Your task to perform on an android device: Do I have any events tomorrow? Image 0: 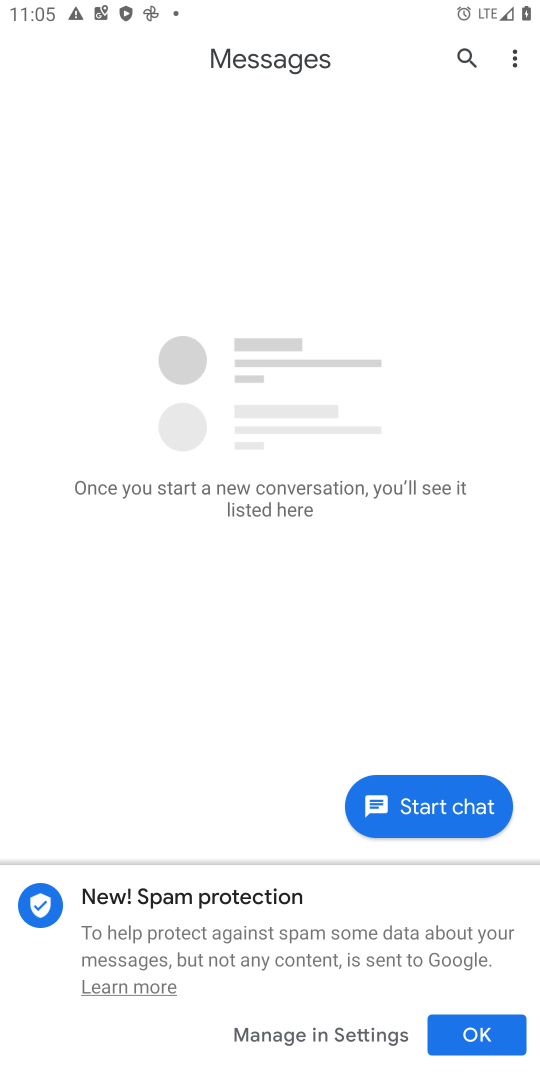
Step 0: press home button
Your task to perform on an android device: Do I have any events tomorrow? Image 1: 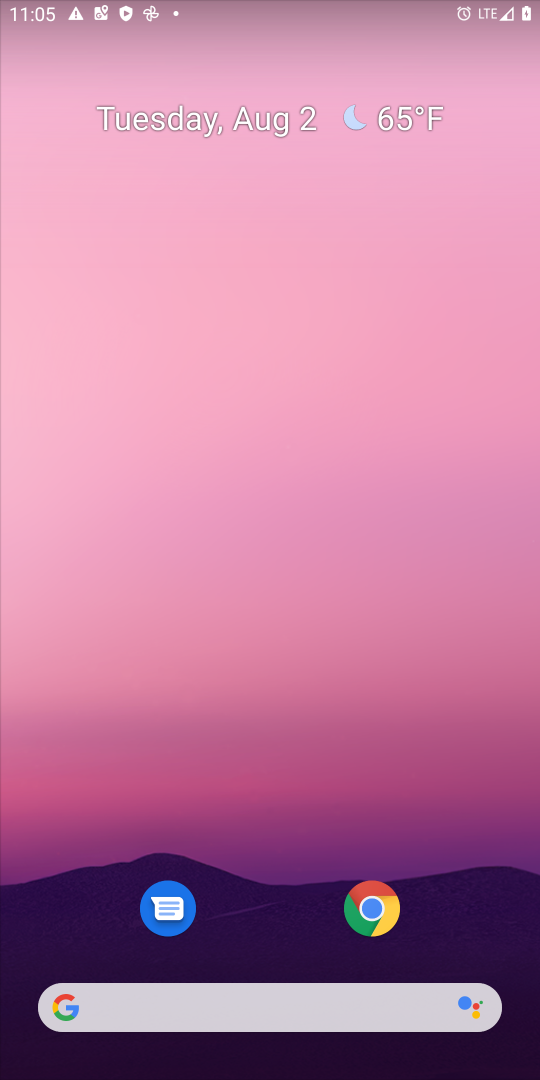
Step 1: drag from (310, 715) to (273, 215)
Your task to perform on an android device: Do I have any events tomorrow? Image 2: 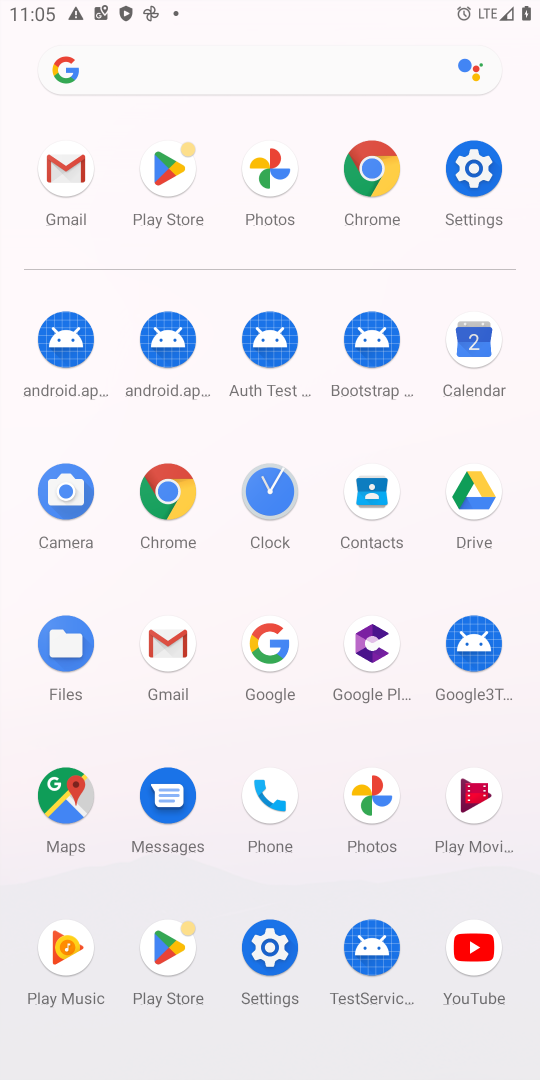
Step 2: click (478, 368)
Your task to perform on an android device: Do I have any events tomorrow? Image 3: 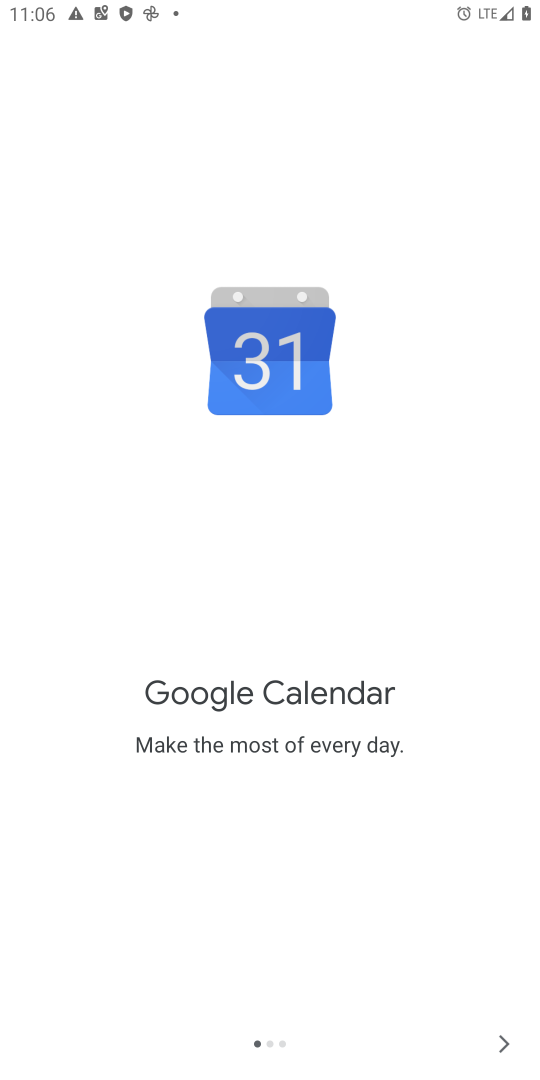
Step 3: click (493, 1039)
Your task to perform on an android device: Do I have any events tomorrow? Image 4: 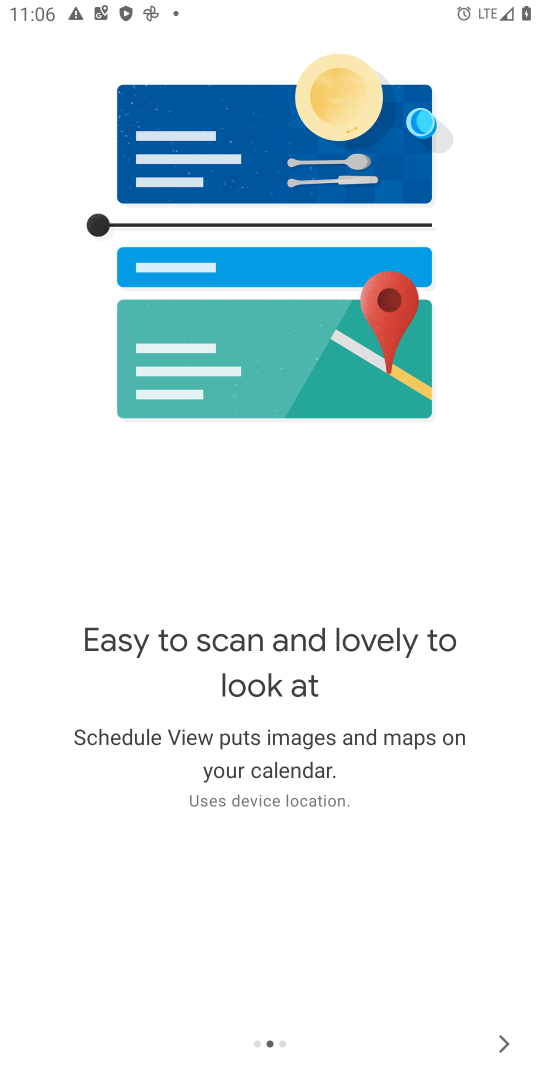
Step 4: click (498, 1040)
Your task to perform on an android device: Do I have any events tomorrow? Image 5: 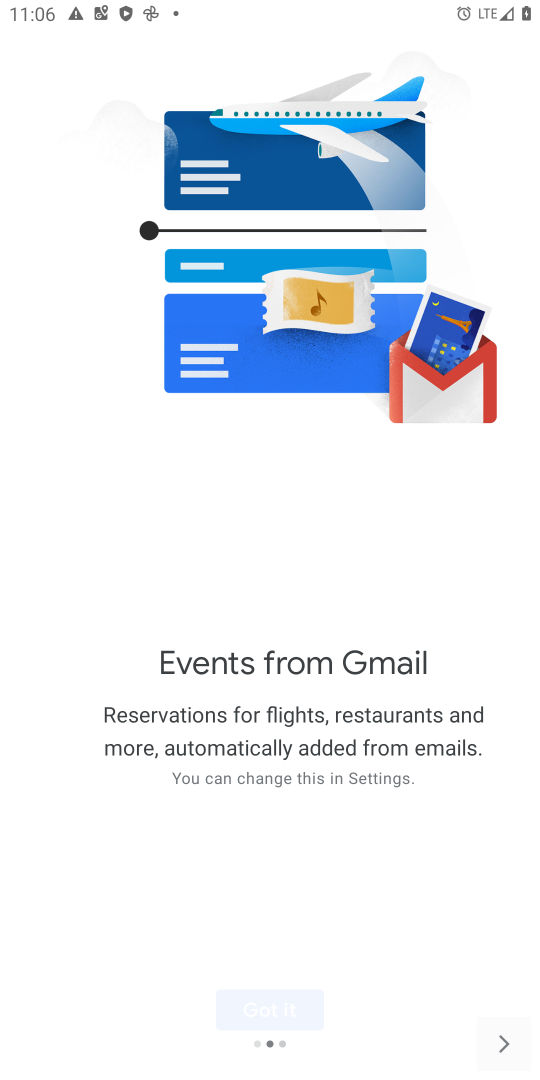
Step 5: click (498, 1040)
Your task to perform on an android device: Do I have any events tomorrow? Image 6: 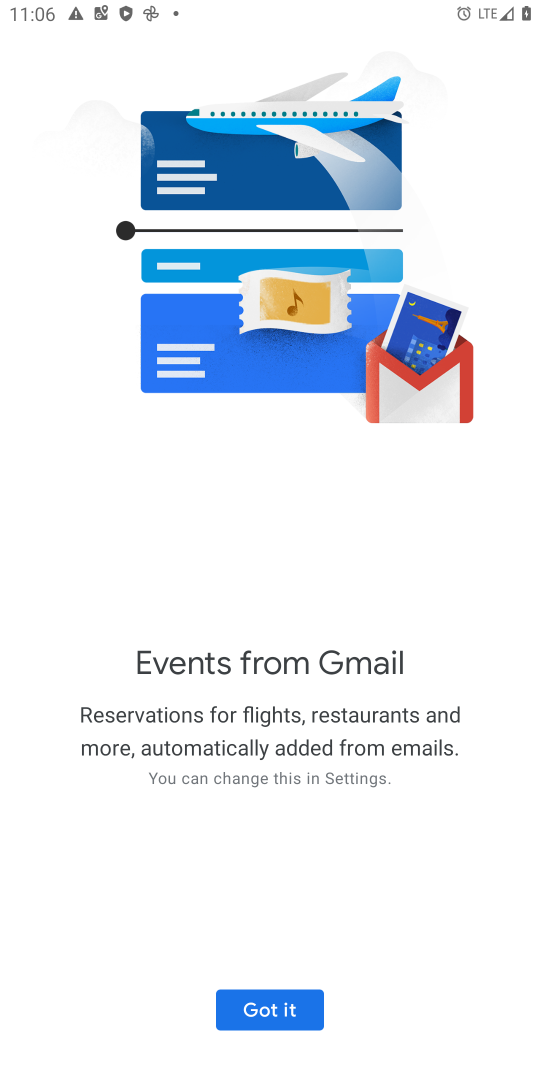
Step 6: click (500, 1041)
Your task to perform on an android device: Do I have any events tomorrow? Image 7: 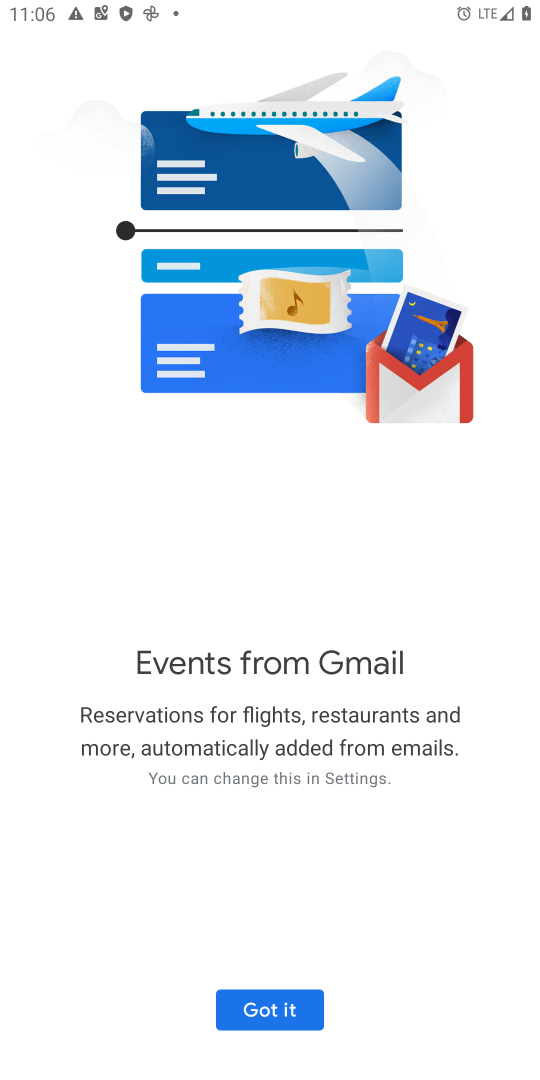
Step 7: click (289, 1020)
Your task to perform on an android device: Do I have any events tomorrow? Image 8: 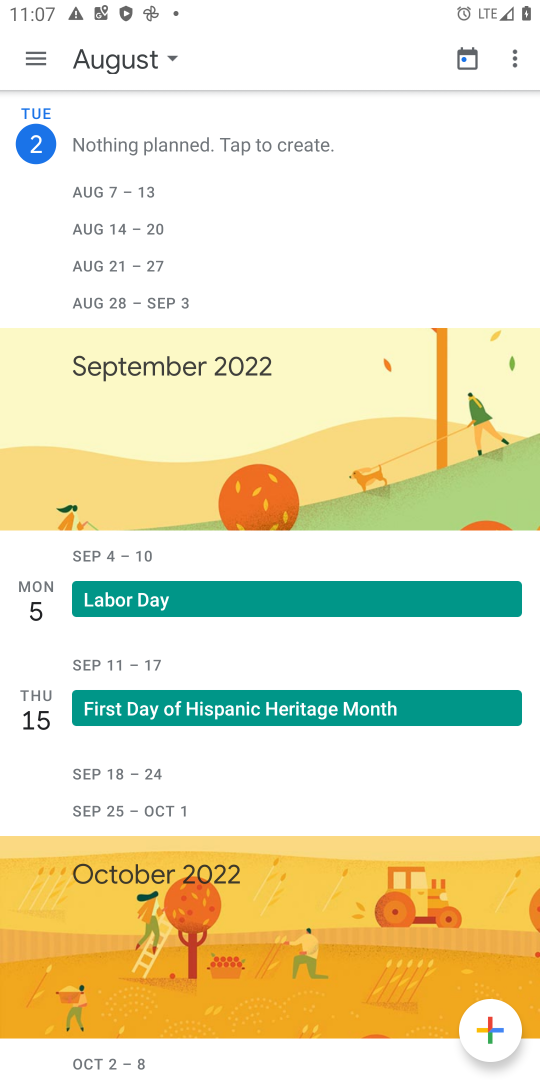
Step 8: click (31, 51)
Your task to perform on an android device: Do I have any events tomorrow? Image 9: 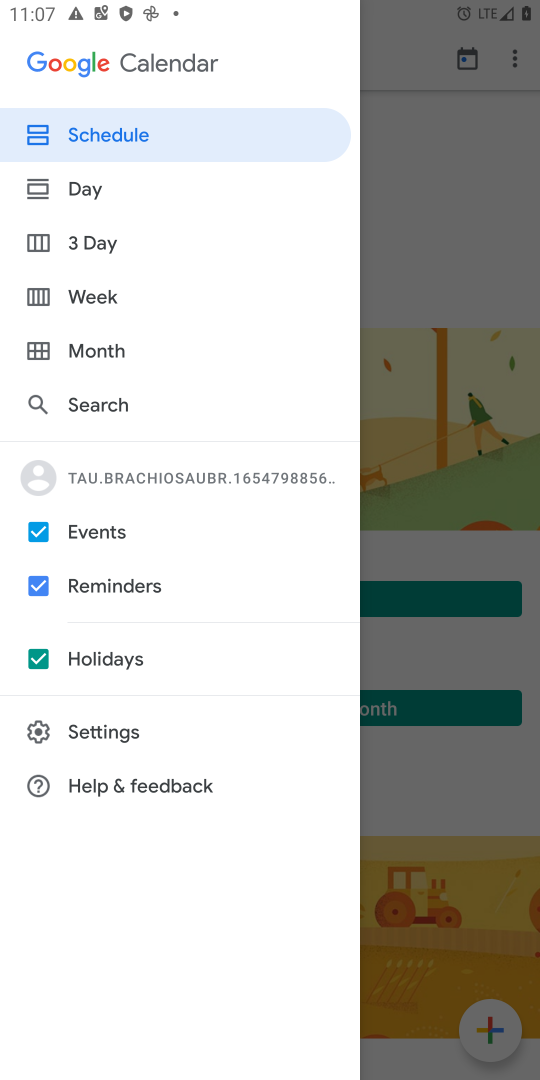
Step 9: click (119, 187)
Your task to perform on an android device: Do I have any events tomorrow? Image 10: 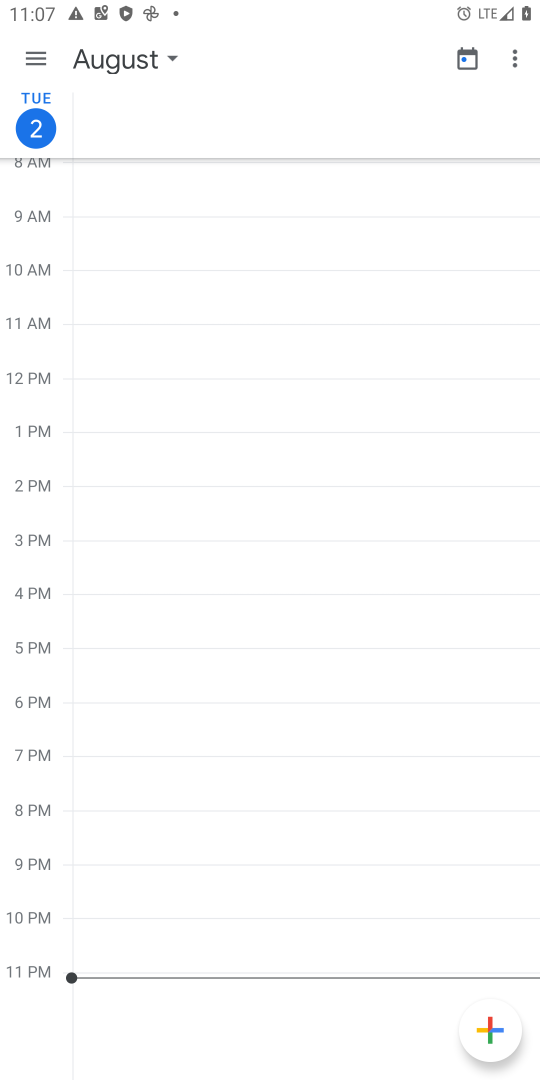
Step 10: task complete